Your task to perform on an android device: change alarm snooze length Image 0: 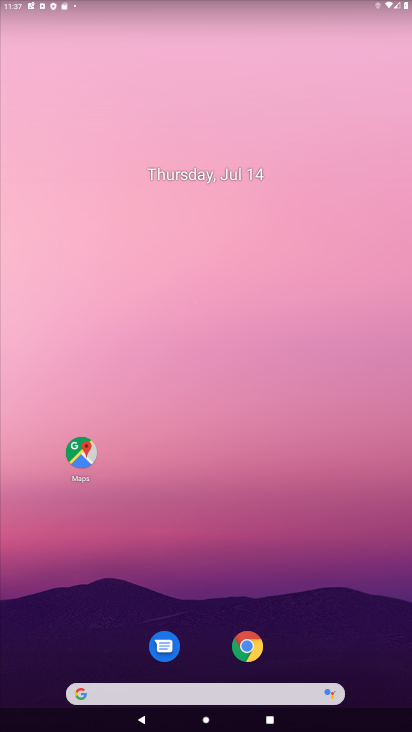
Step 0: drag from (202, 640) to (218, 127)
Your task to perform on an android device: change alarm snooze length Image 1: 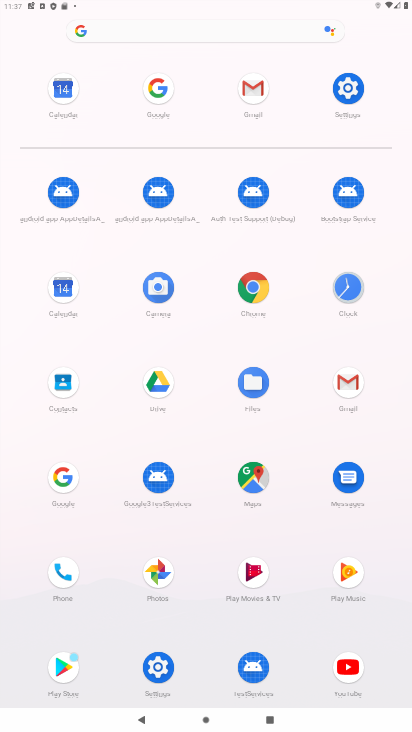
Step 1: click (357, 289)
Your task to perform on an android device: change alarm snooze length Image 2: 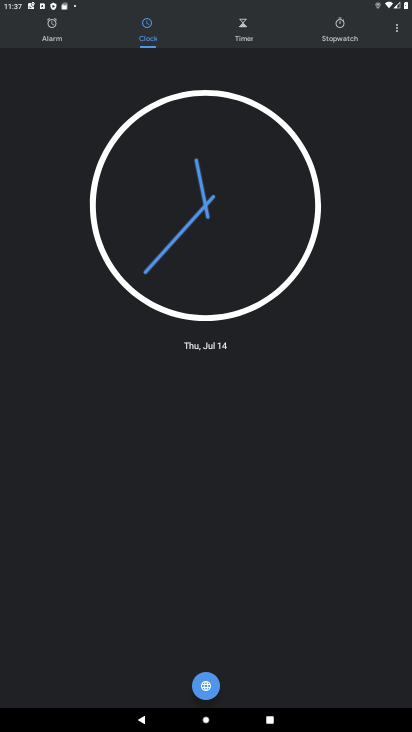
Step 2: click (391, 26)
Your task to perform on an android device: change alarm snooze length Image 3: 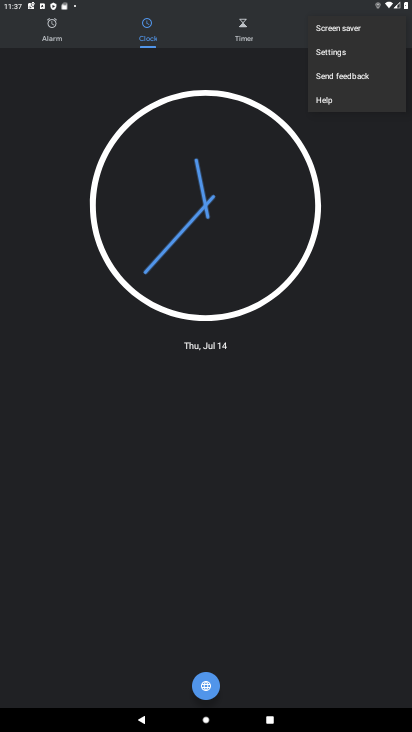
Step 3: click (354, 60)
Your task to perform on an android device: change alarm snooze length Image 4: 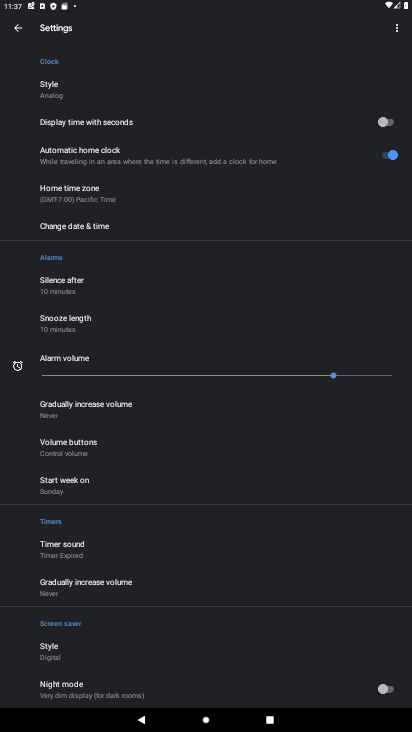
Step 4: click (76, 325)
Your task to perform on an android device: change alarm snooze length Image 5: 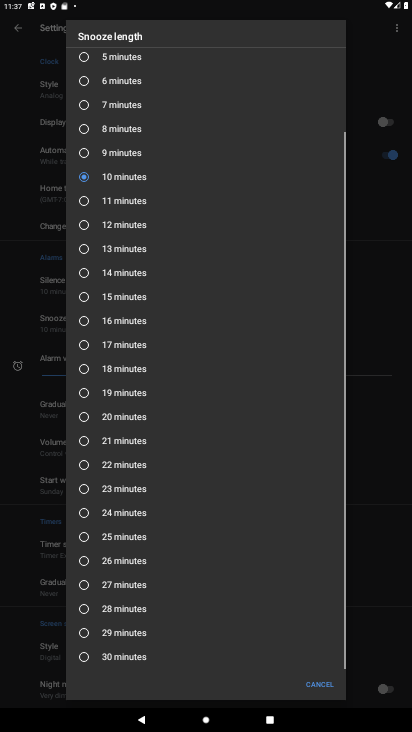
Step 5: click (151, 398)
Your task to perform on an android device: change alarm snooze length Image 6: 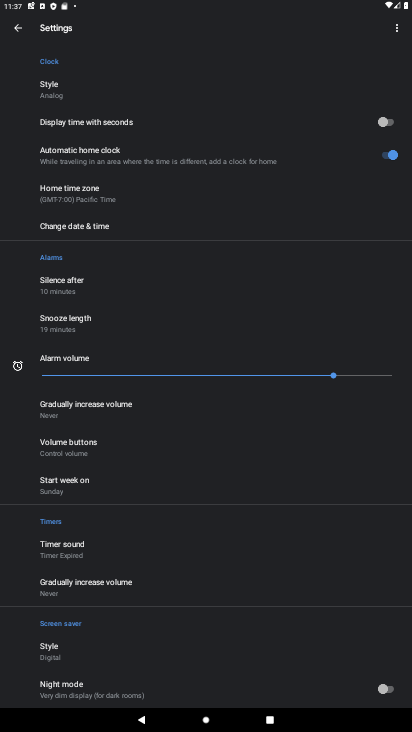
Step 6: task complete